Your task to perform on an android device: turn off location history Image 0: 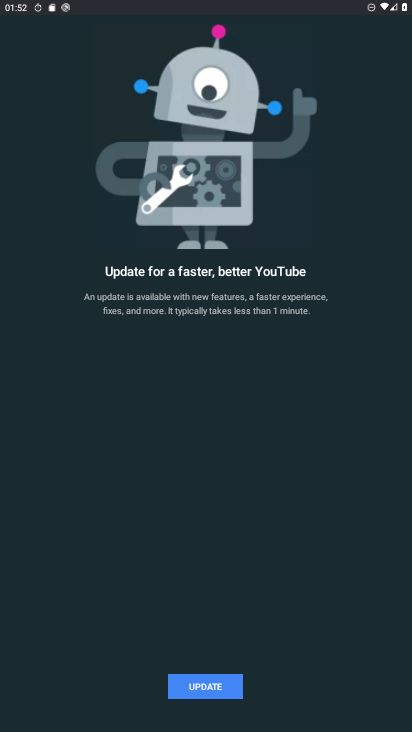
Step 0: press home button
Your task to perform on an android device: turn off location history Image 1: 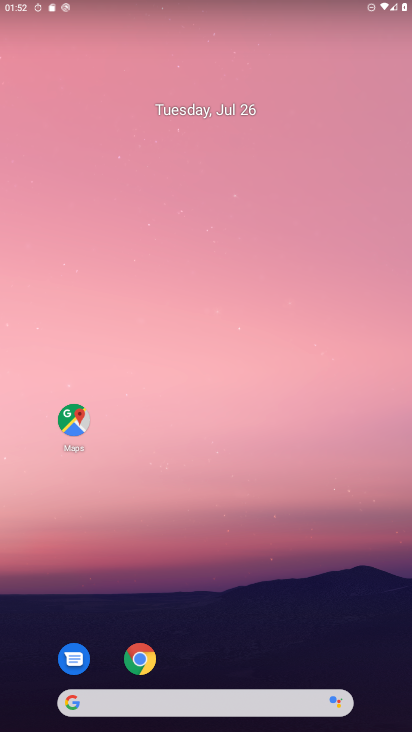
Step 1: drag from (5, 676) to (170, 252)
Your task to perform on an android device: turn off location history Image 2: 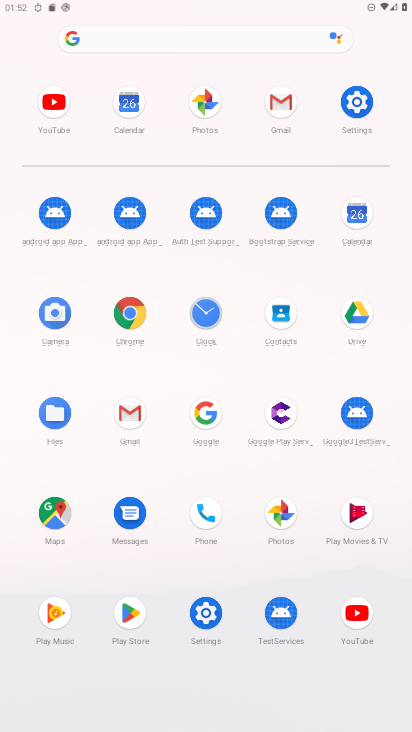
Step 2: click (200, 611)
Your task to perform on an android device: turn off location history Image 3: 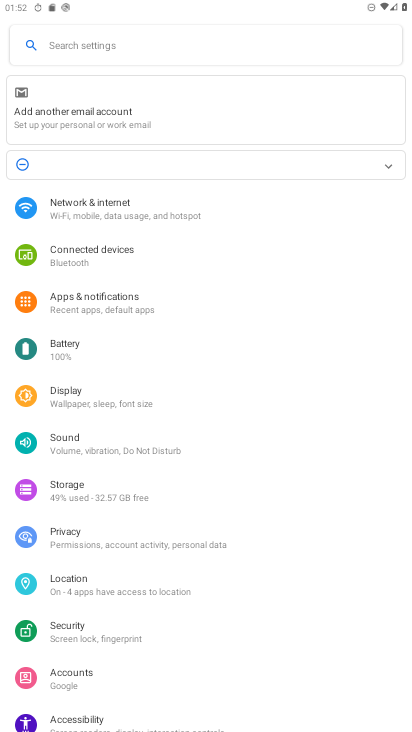
Step 3: click (70, 584)
Your task to perform on an android device: turn off location history Image 4: 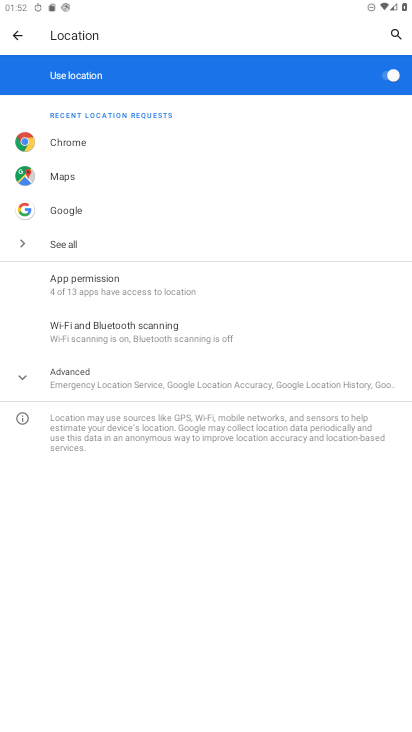
Step 4: click (111, 380)
Your task to perform on an android device: turn off location history Image 5: 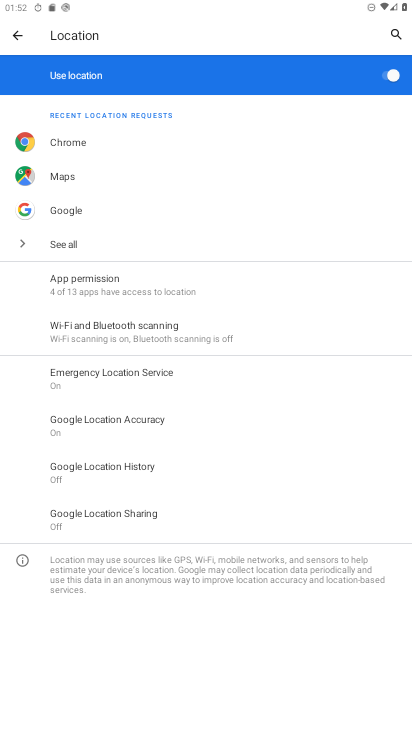
Step 5: task complete